Your task to perform on an android device: Open notification settings Image 0: 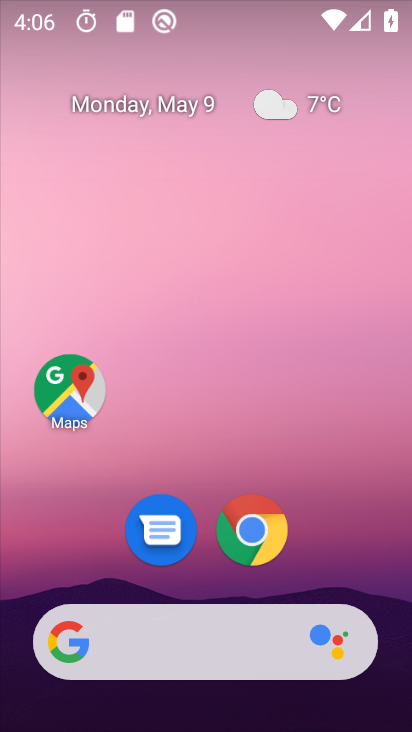
Step 0: drag from (202, 547) to (248, 0)
Your task to perform on an android device: Open notification settings Image 1: 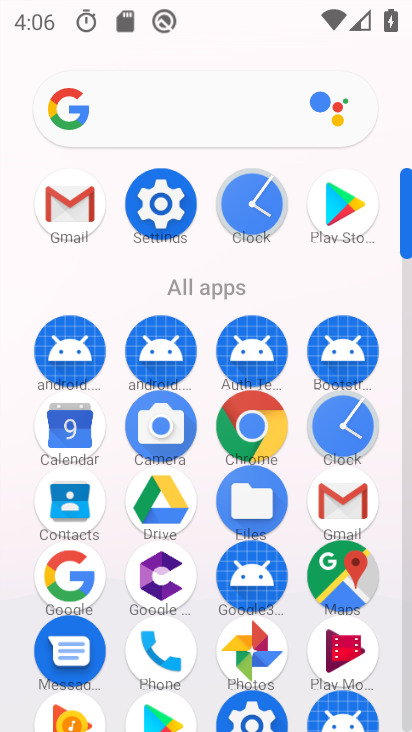
Step 1: click (172, 207)
Your task to perform on an android device: Open notification settings Image 2: 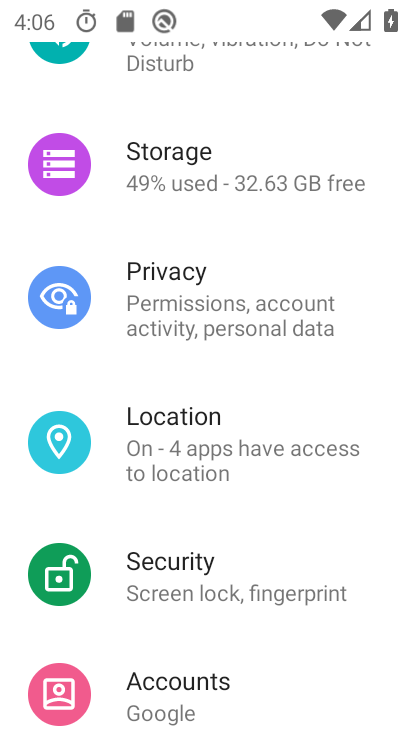
Step 2: drag from (212, 239) to (203, 695)
Your task to perform on an android device: Open notification settings Image 3: 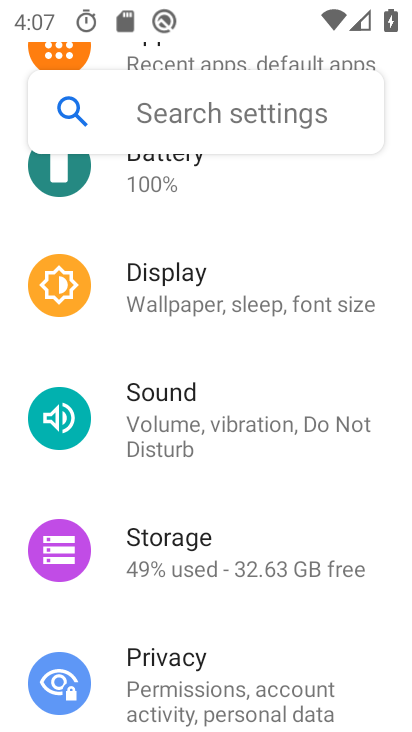
Step 3: drag from (228, 273) to (167, 662)
Your task to perform on an android device: Open notification settings Image 4: 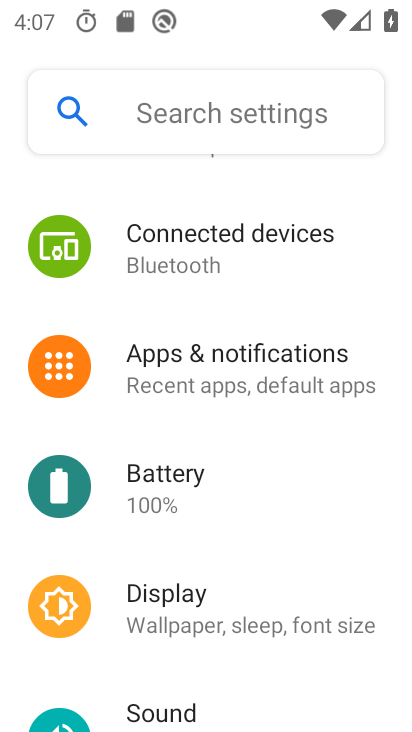
Step 4: click (221, 373)
Your task to perform on an android device: Open notification settings Image 5: 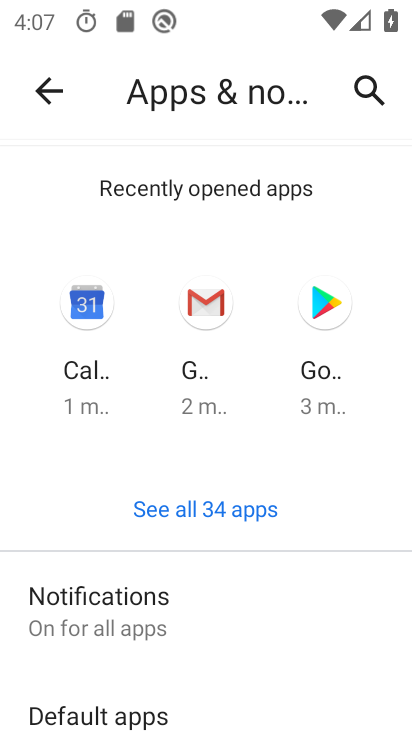
Step 5: task complete